Your task to perform on an android device: turn on the 24-hour format for clock Image 0: 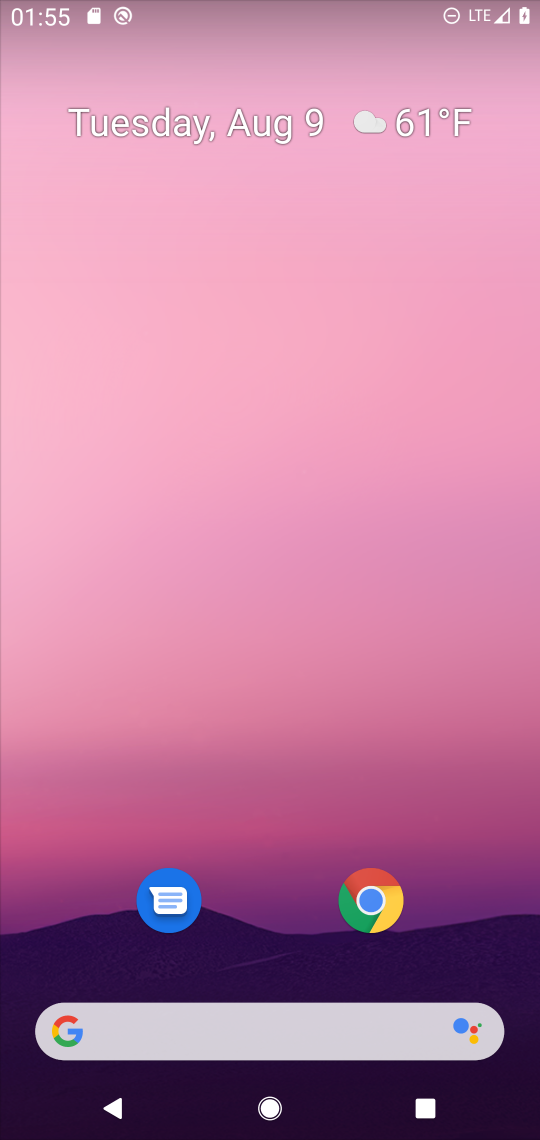
Step 0: drag from (266, 950) to (324, 113)
Your task to perform on an android device: turn on the 24-hour format for clock Image 1: 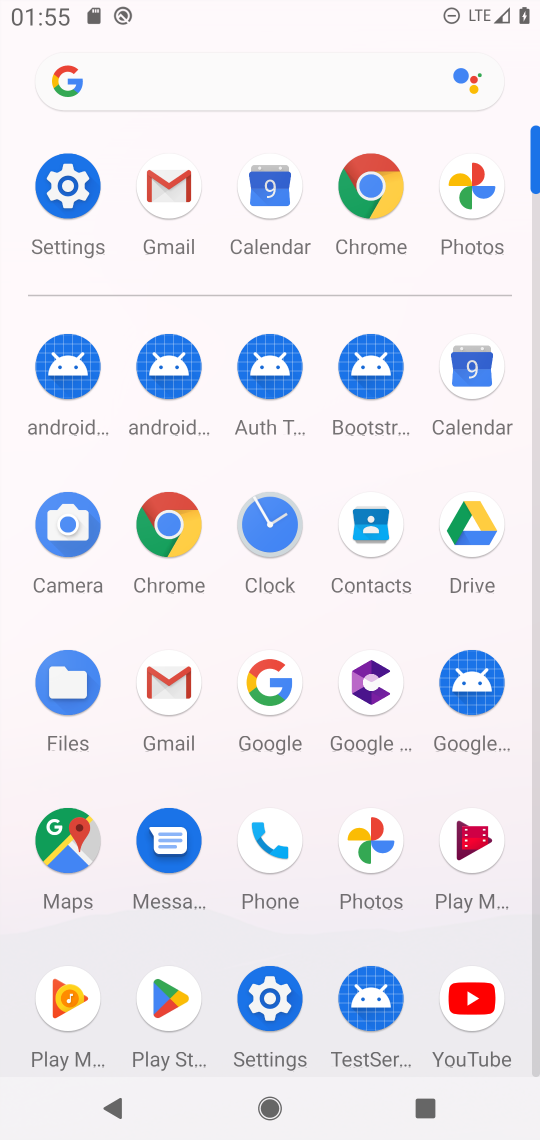
Step 1: click (269, 521)
Your task to perform on an android device: turn on the 24-hour format for clock Image 2: 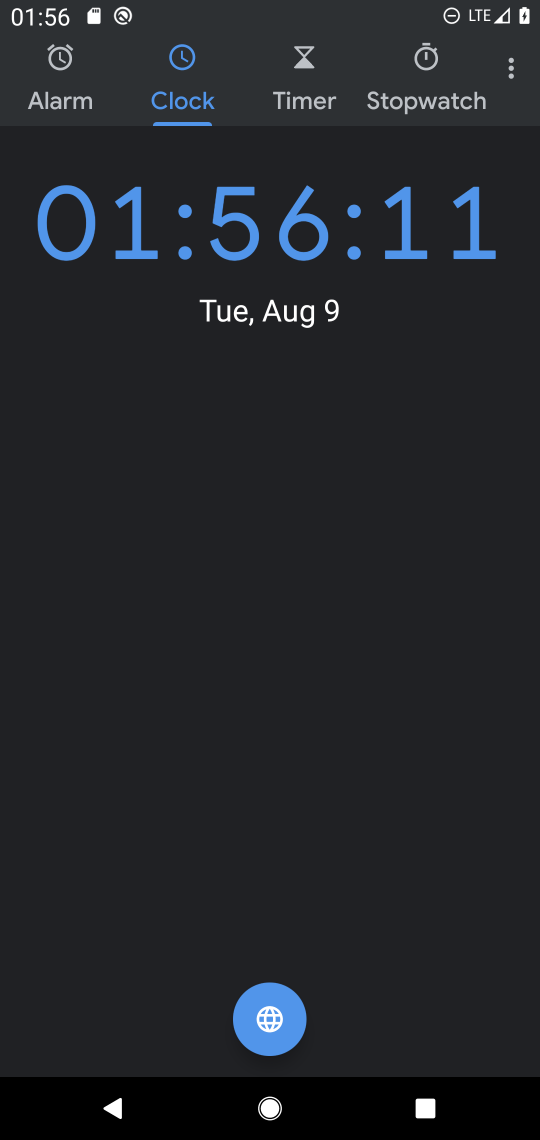
Step 2: click (512, 76)
Your task to perform on an android device: turn on the 24-hour format for clock Image 3: 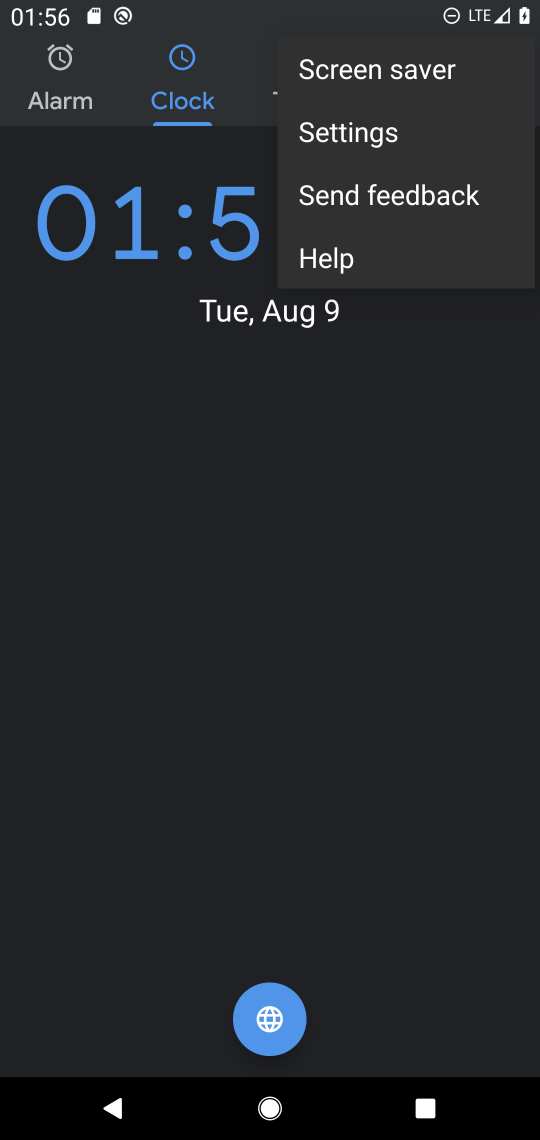
Step 3: click (379, 148)
Your task to perform on an android device: turn on the 24-hour format for clock Image 4: 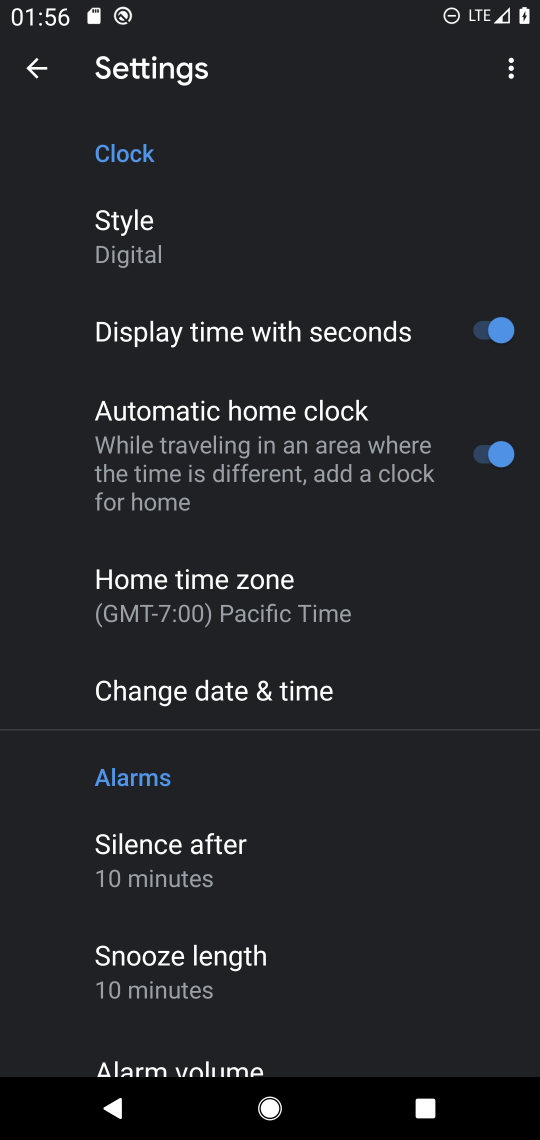
Step 4: drag from (448, 722) to (441, 463)
Your task to perform on an android device: turn on the 24-hour format for clock Image 5: 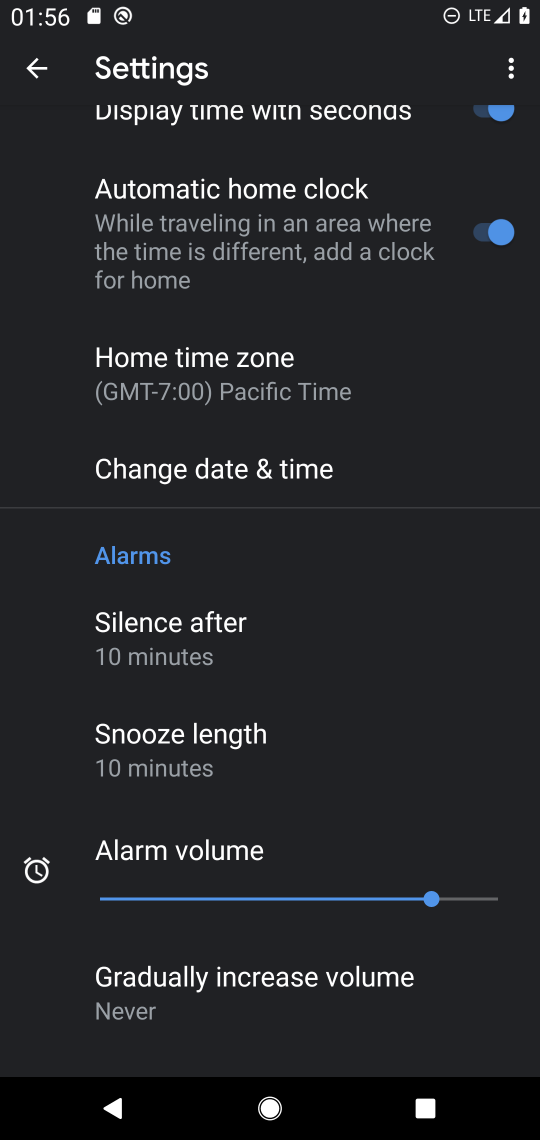
Step 5: drag from (391, 700) to (400, 351)
Your task to perform on an android device: turn on the 24-hour format for clock Image 6: 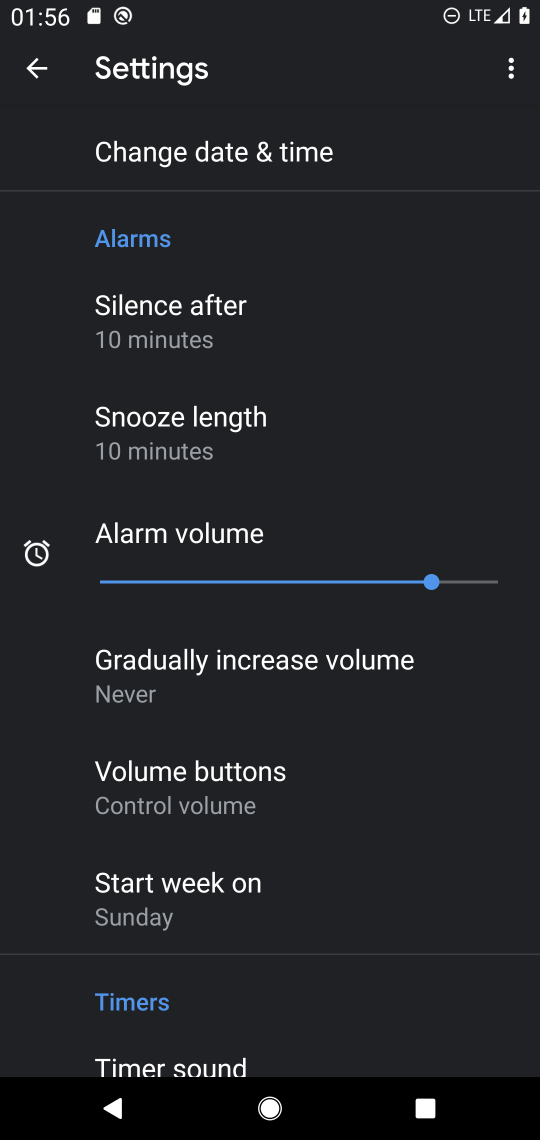
Step 6: drag from (405, 779) to (447, 388)
Your task to perform on an android device: turn on the 24-hour format for clock Image 7: 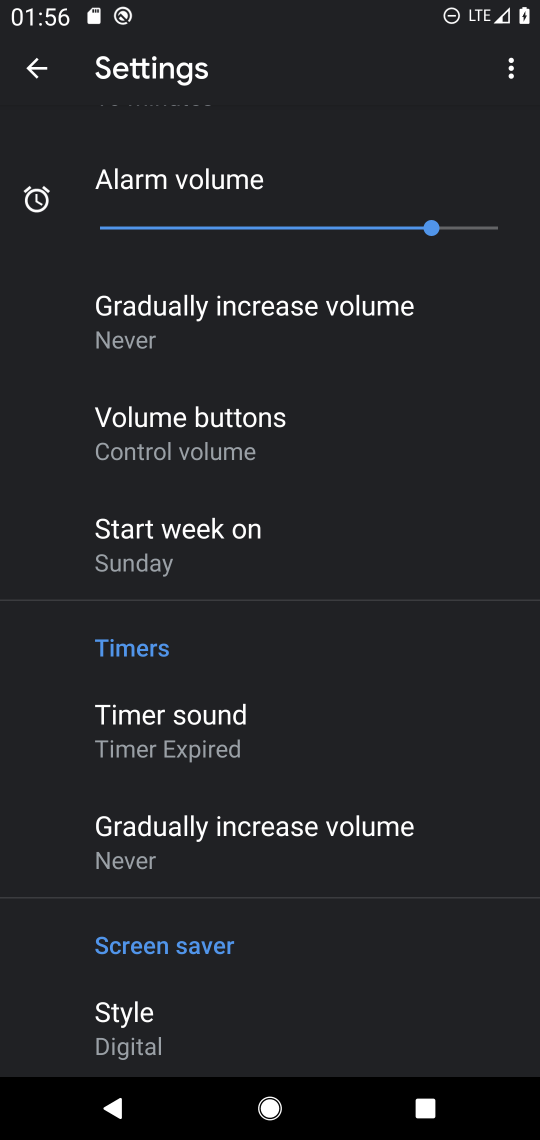
Step 7: drag from (417, 779) to (422, 483)
Your task to perform on an android device: turn on the 24-hour format for clock Image 8: 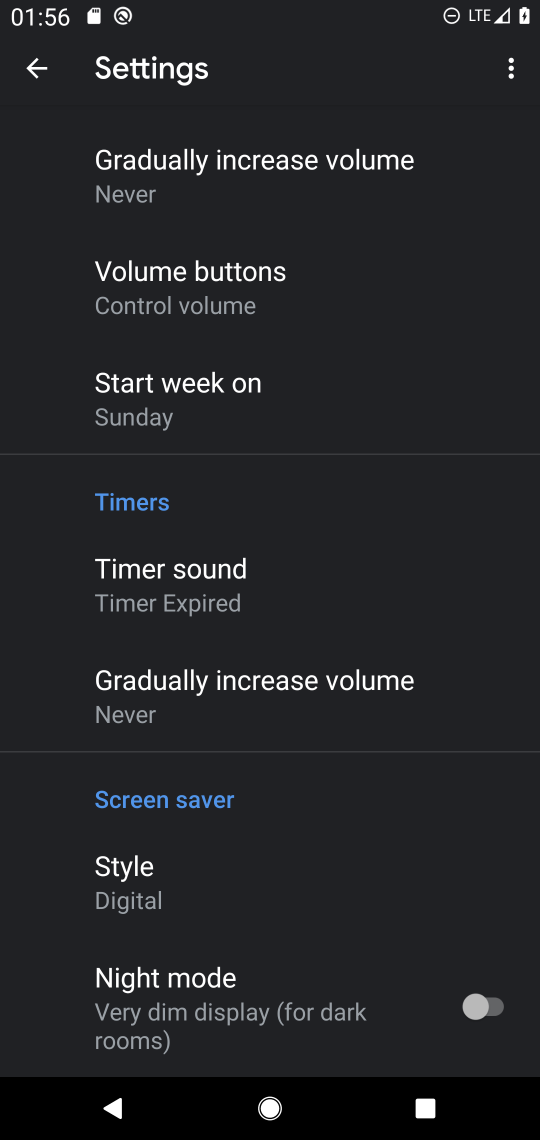
Step 8: drag from (412, 851) to (441, 507)
Your task to perform on an android device: turn on the 24-hour format for clock Image 9: 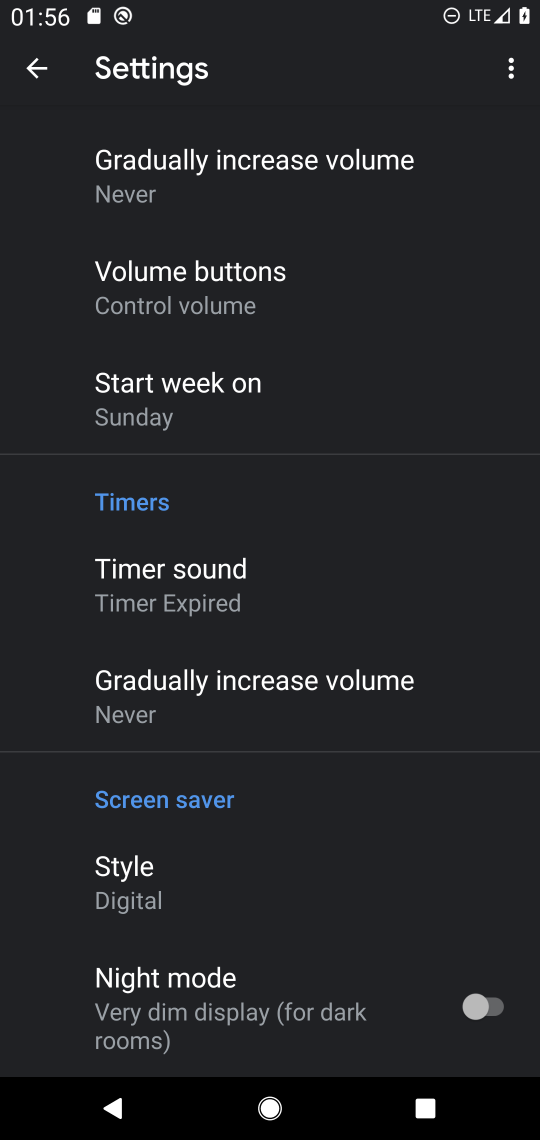
Step 9: drag from (438, 334) to (441, 540)
Your task to perform on an android device: turn on the 24-hour format for clock Image 10: 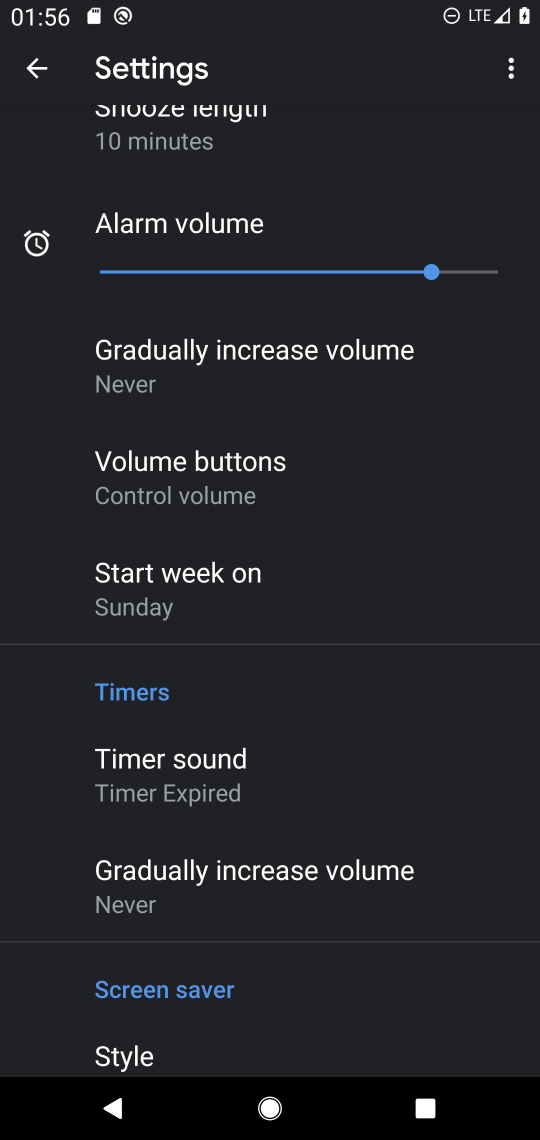
Step 10: drag from (468, 336) to (452, 705)
Your task to perform on an android device: turn on the 24-hour format for clock Image 11: 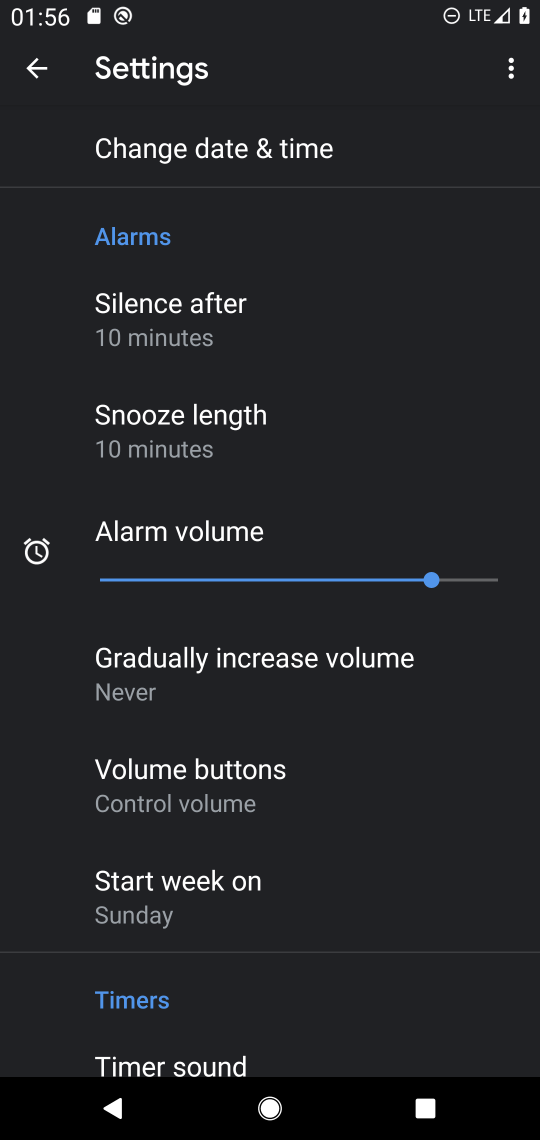
Step 11: drag from (431, 311) to (418, 693)
Your task to perform on an android device: turn on the 24-hour format for clock Image 12: 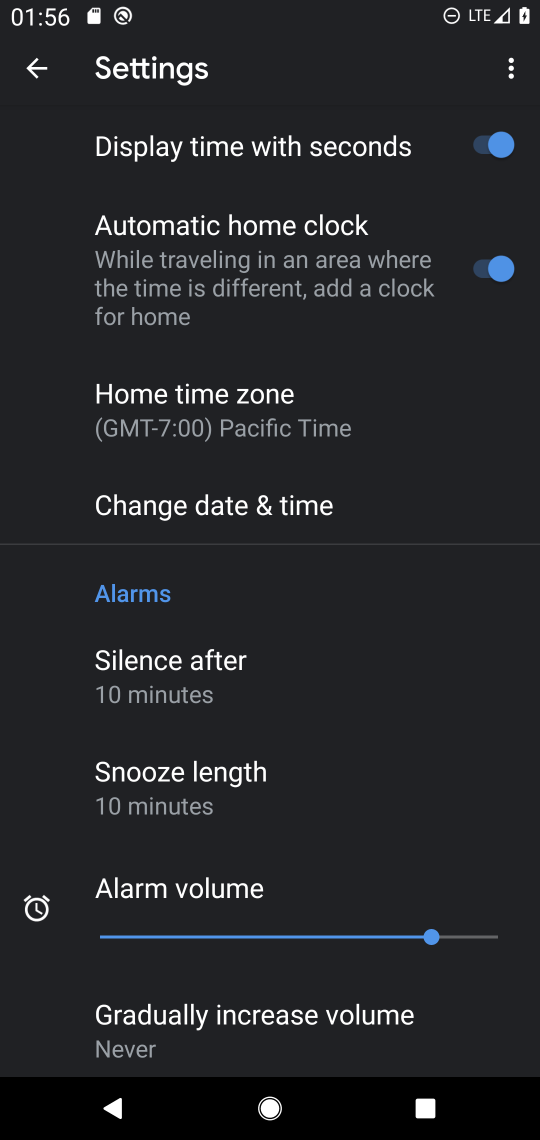
Step 12: drag from (454, 359) to (432, 698)
Your task to perform on an android device: turn on the 24-hour format for clock Image 13: 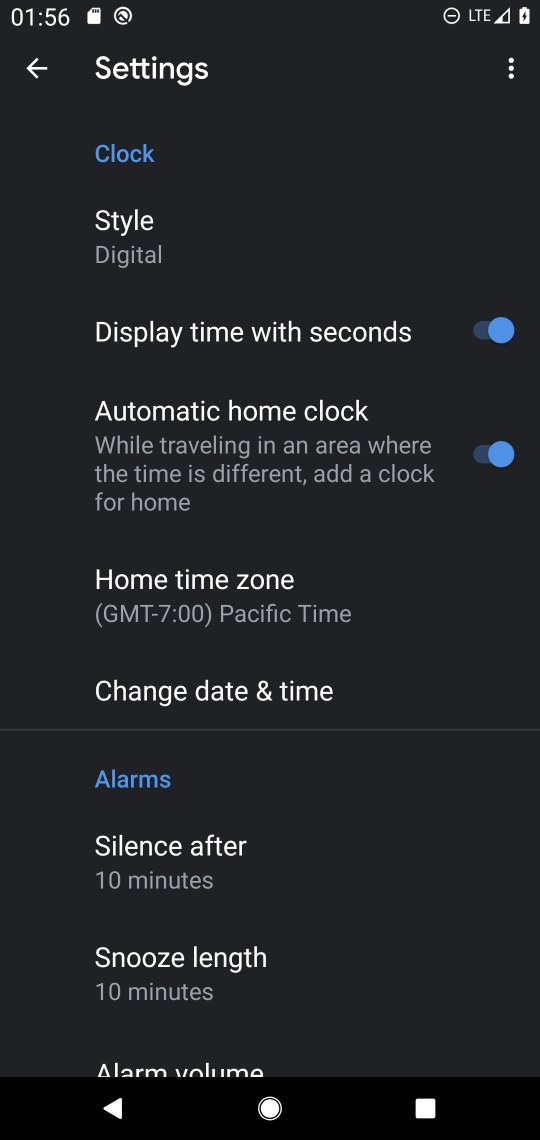
Step 13: click (335, 683)
Your task to perform on an android device: turn on the 24-hour format for clock Image 14: 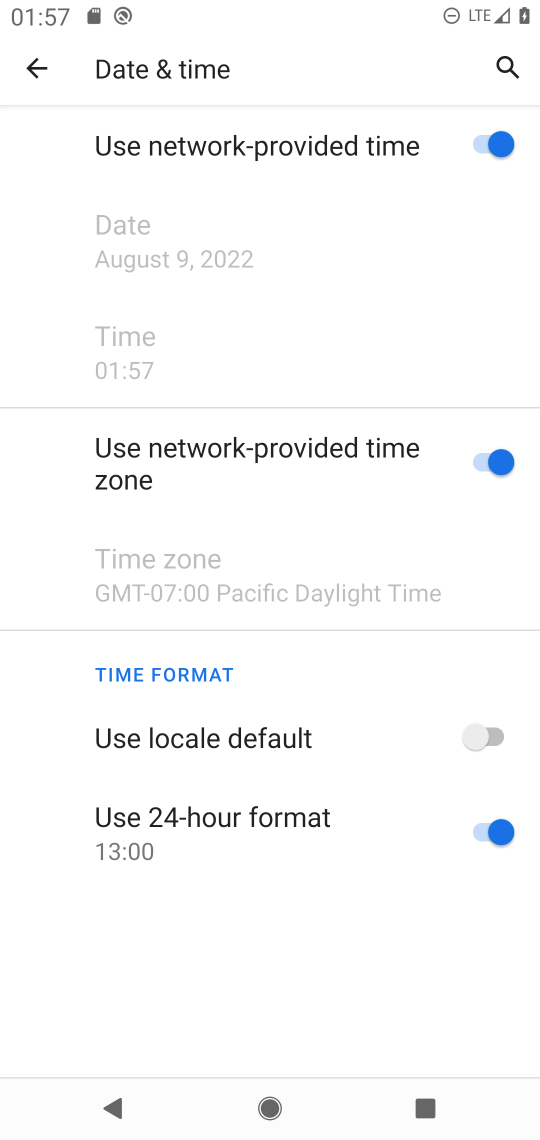
Step 14: task complete